Your task to perform on an android device: turn notification dots on Image 0: 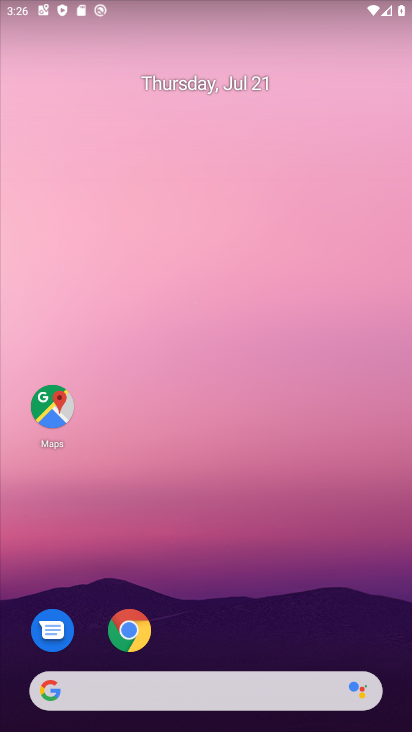
Step 0: drag from (218, 666) to (356, 353)
Your task to perform on an android device: turn notification dots on Image 1: 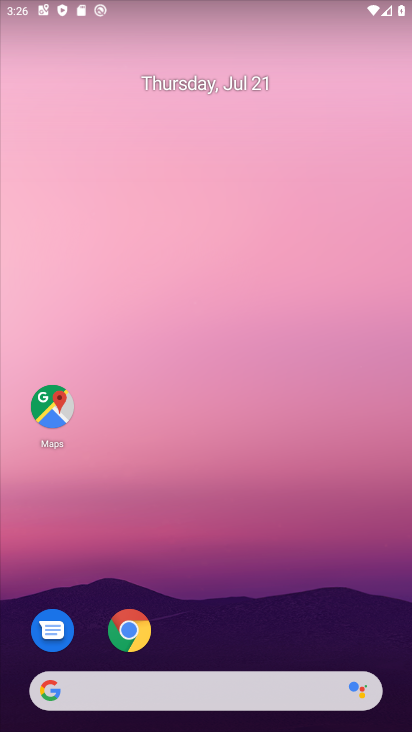
Step 1: drag from (216, 677) to (180, 1)
Your task to perform on an android device: turn notification dots on Image 2: 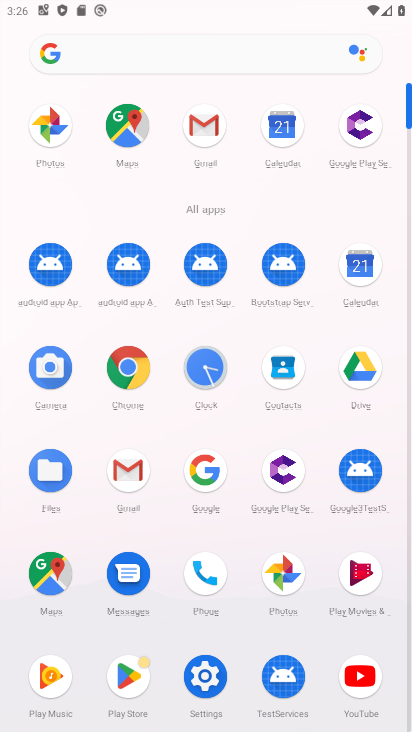
Step 2: click (200, 687)
Your task to perform on an android device: turn notification dots on Image 3: 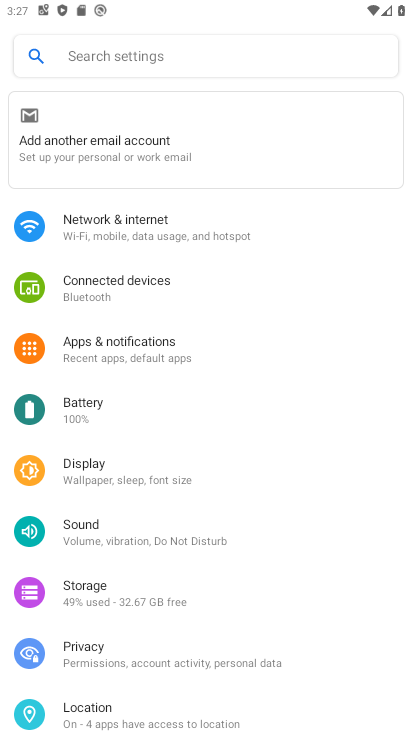
Step 3: click (145, 348)
Your task to perform on an android device: turn notification dots on Image 4: 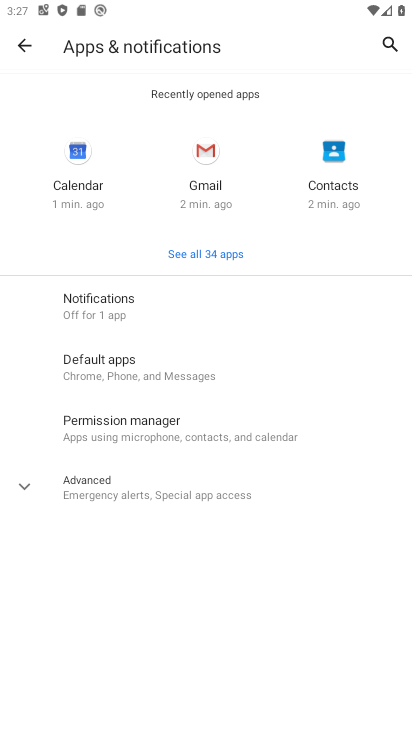
Step 4: click (64, 489)
Your task to perform on an android device: turn notification dots on Image 5: 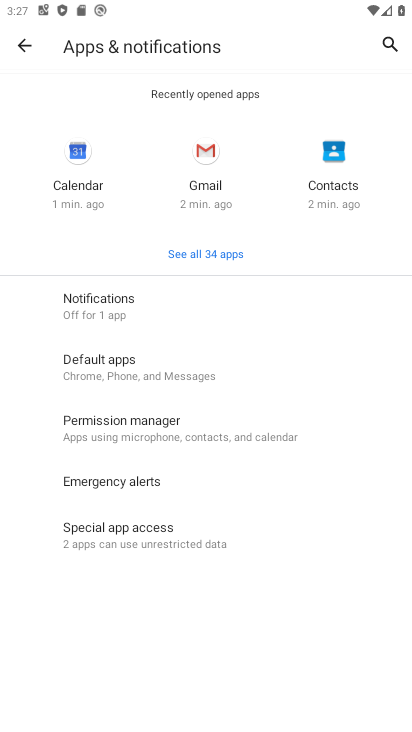
Step 5: click (148, 284)
Your task to perform on an android device: turn notification dots on Image 6: 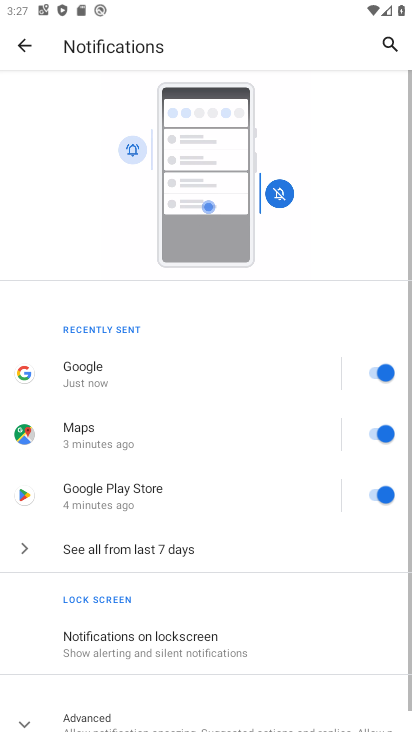
Step 6: drag from (196, 629) to (151, 195)
Your task to perform on an android device: turn notification dots on Image 7: 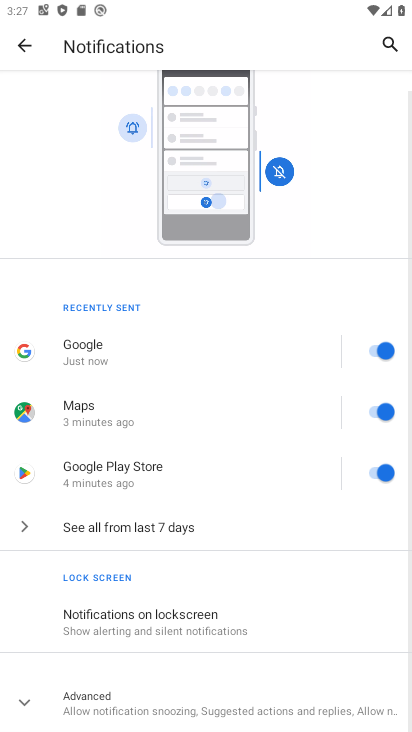
Step 7: click (127, 700)
Your task to perform on an android device: turn notification dots on Image 8: 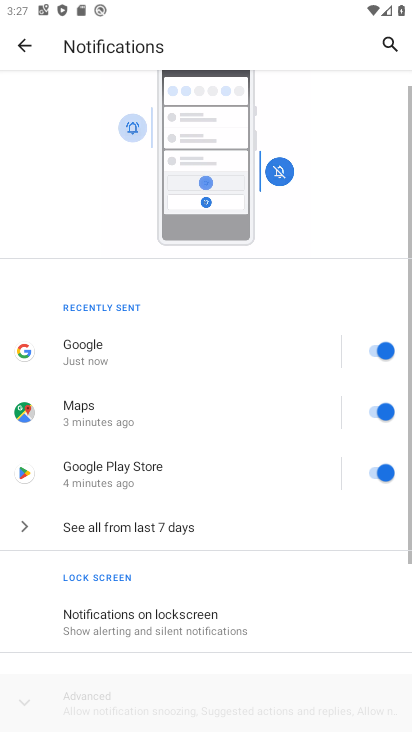
Step 8: task complete